Your task to perform on an android device: open a bookmark in the chrome app Image 0: 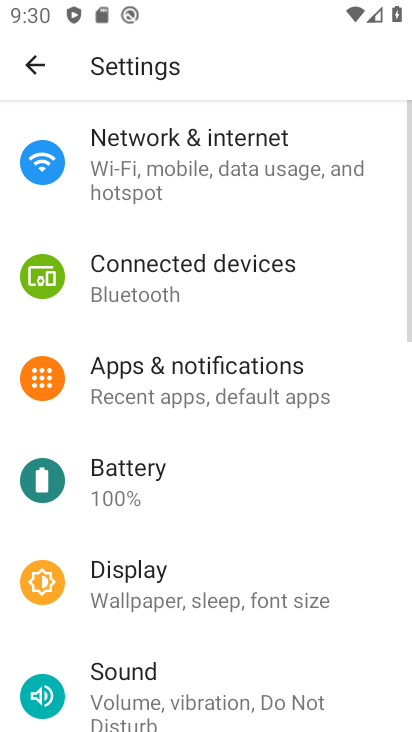
Step 0: press home button
Your task to perform on an android device: open a bookmark in the chrome app Image 1: 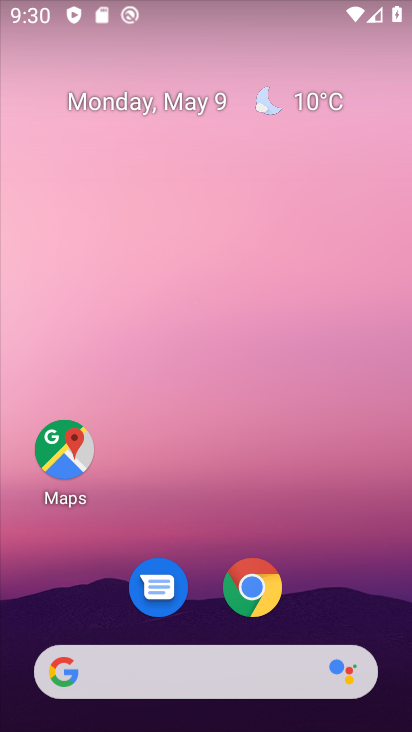
Step 1: click (268, 576)
Your task to perform on an android device: open a bookmark in the chrome app Image 2: 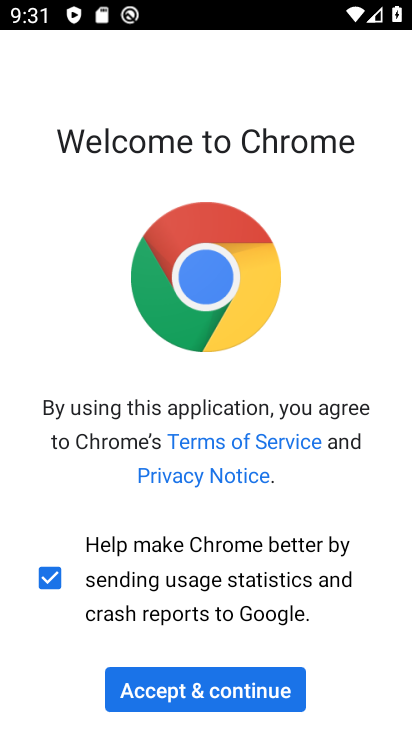
Step 2: click (236, 679)
Your task to perform on an android device: open a bookmark in the chrome app Image 3: 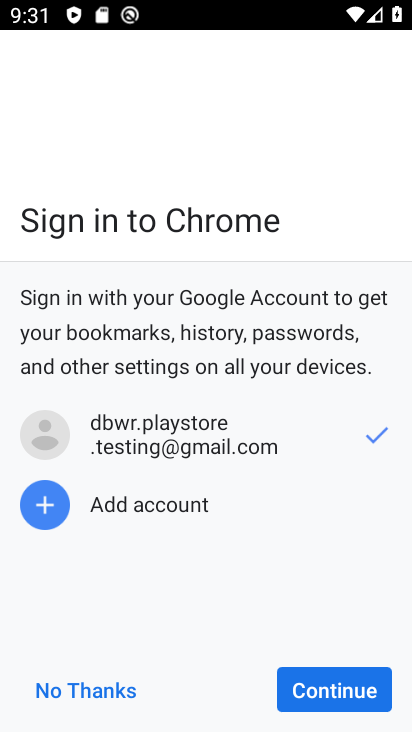
Step 3: click (327, 672)
Your task to perform on an android device: open a bookmark in the chrome app Image 4: 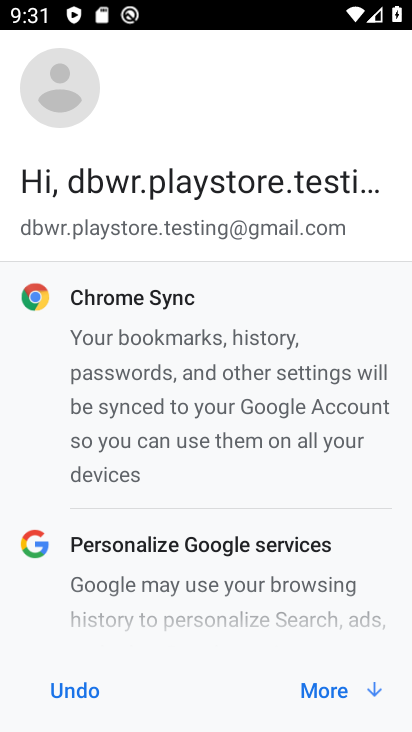
Step 4: click (336, 698)
Your task to perform on an android device: open a bookmark in the chrome app Image 5: 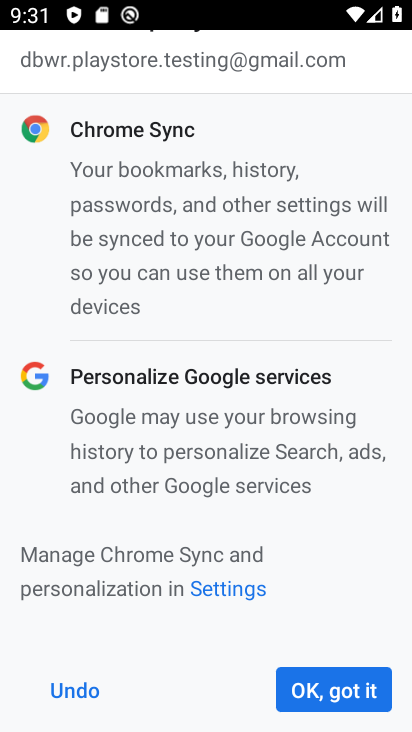
Step 5: click (336, 698)
Your task to perform on an android device: open a bookmark in the chrome app Image 6: 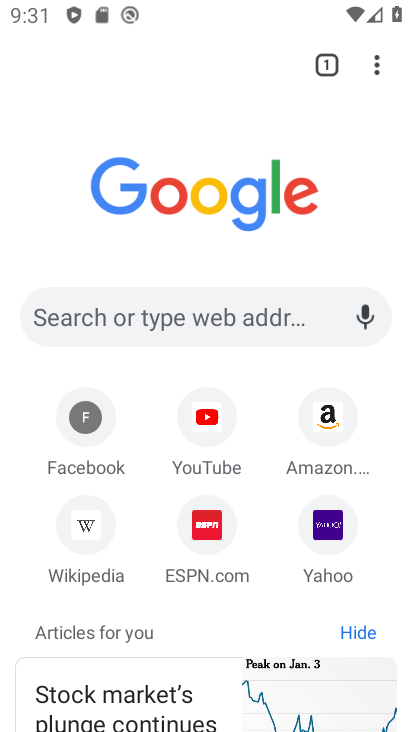
Step 6: click (375, 71)
Your task to perform on an android device: open a bookmark in the chrome app Image 7: 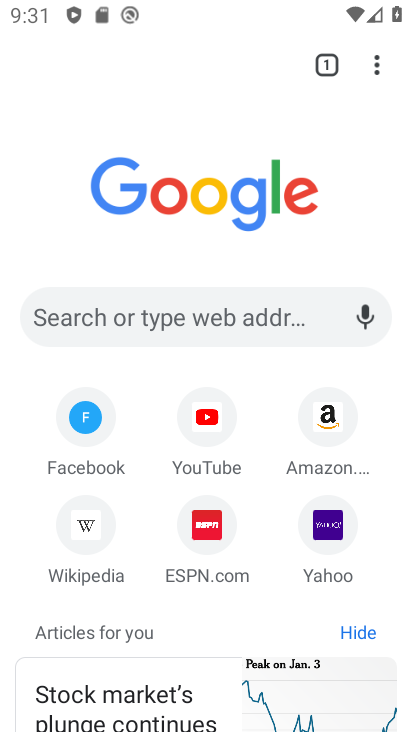
Step 7: click (378, 69)
Your task to perform on an android device: open a bookmark in the chrome app Image 8: 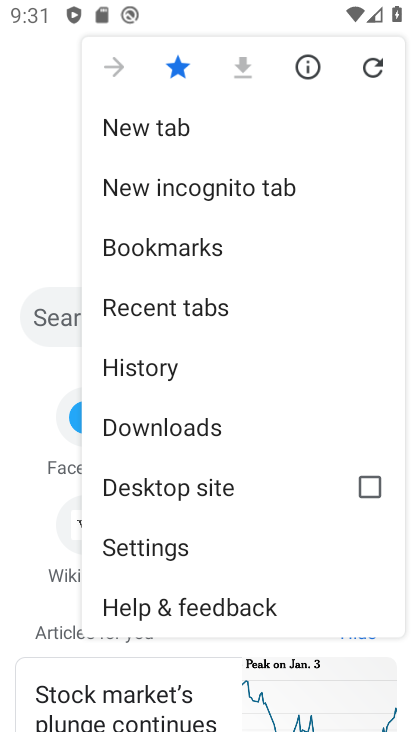
Step 8: click (168, 245)
Your task to perform on an android device: open a bookmark in the chrome app Image 9: 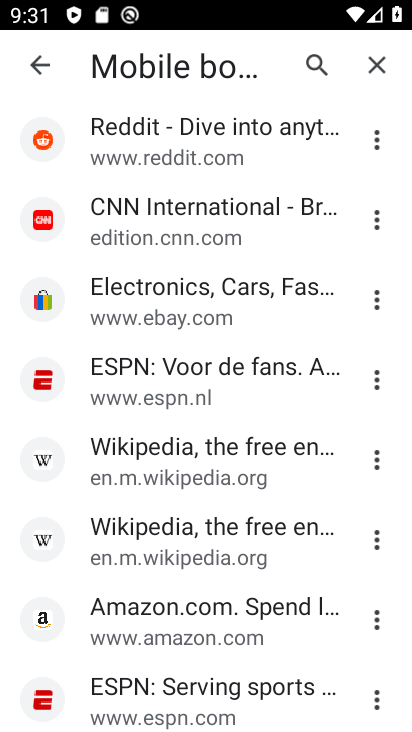
Step 9: click (199, 401)
Your task to perform on an android device: open a bookmark in the chrome app Image 10: 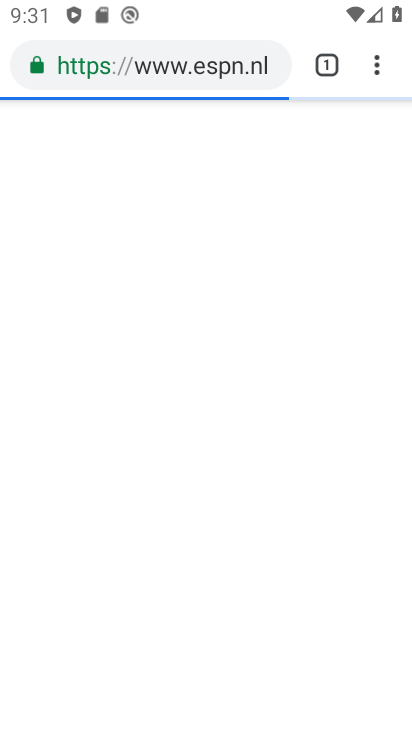
Step 10: task complete